Your task to perform on an android device: Do I have any events today? Image 0: 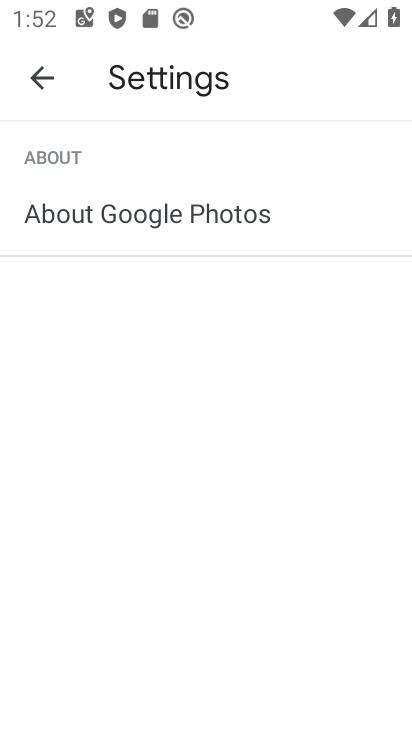
Step 0: press home button
Your task to perform on an android device: Do I have any events today? Image 1: 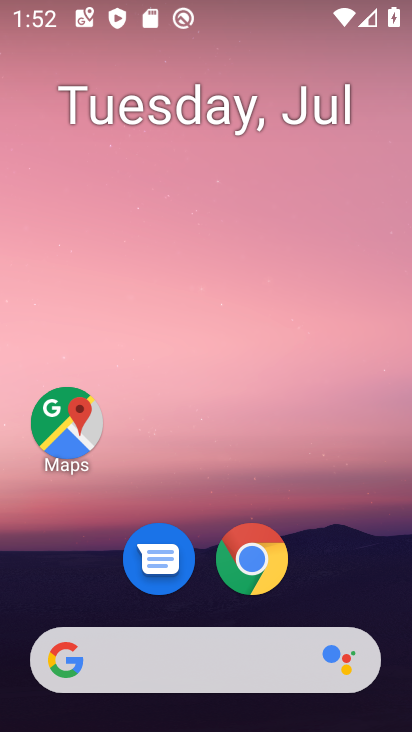
Step 1: drag from (356, 582) to (391, 171)
Your task to perform on an android device: Do I have any events today? Image 2: 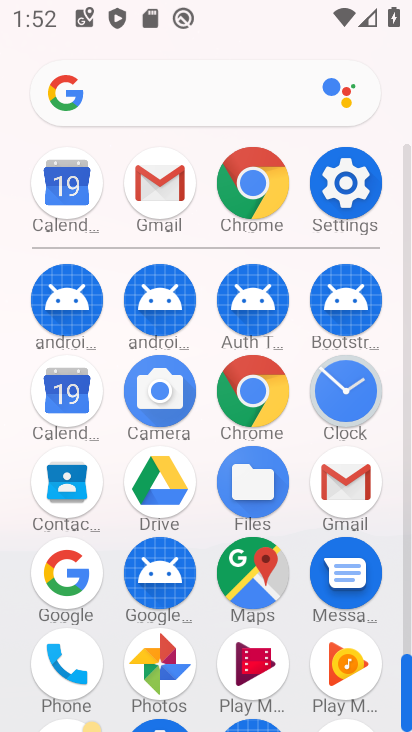
Step 2: click (68, 401)
Your task to perform on an android device: Do I have any events today? Image 3: 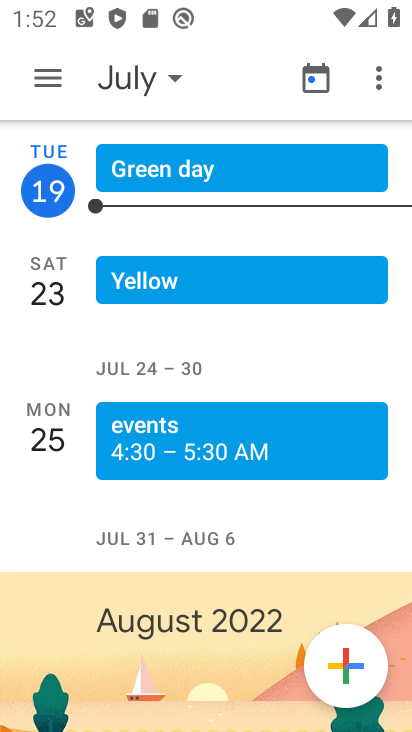
Step 3: click (177, 161)
Your task to perform on an android device: Do I have any events today? Image 4: 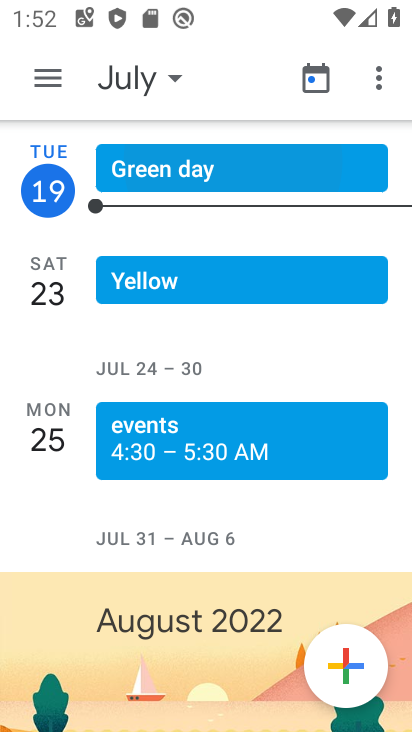
Step 4: click (177, 161)
Your task to perform on an android device: Do I have any events today? Image 5: 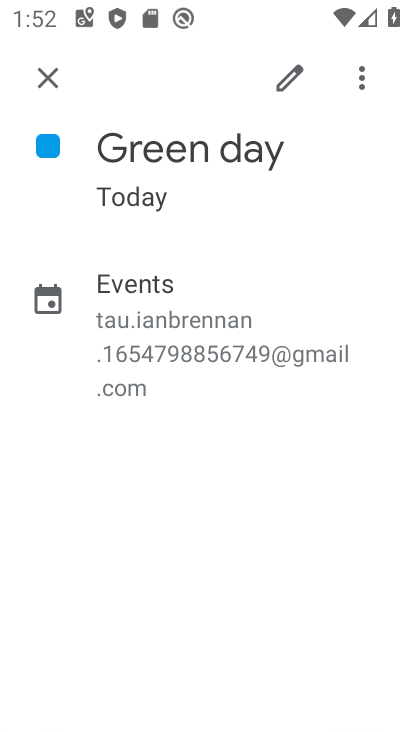
Step 5: task complete